Your task to perform on an android device: Open network settings Image 0: 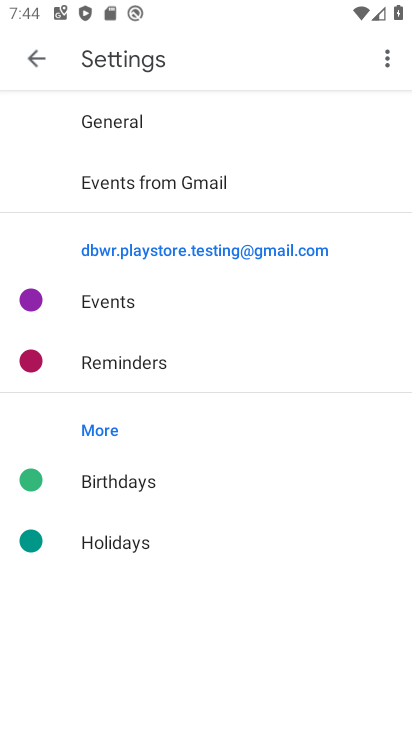
Step 0: press home button
Your task to perform on an android device: Open network settings Image 1: 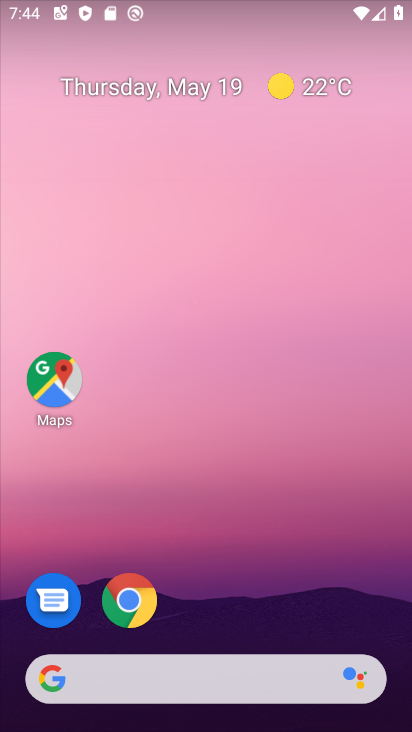
Step 1: drag from (341, 573) to (326, 245)
Your task to perform on an android device: Open network settings Image 2: 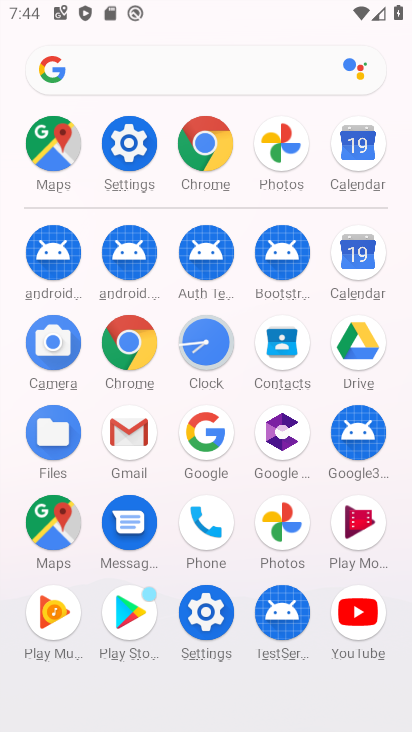
Step 2: click (192, 606)
Your task to perform on an android device: Open network settings Image 3: 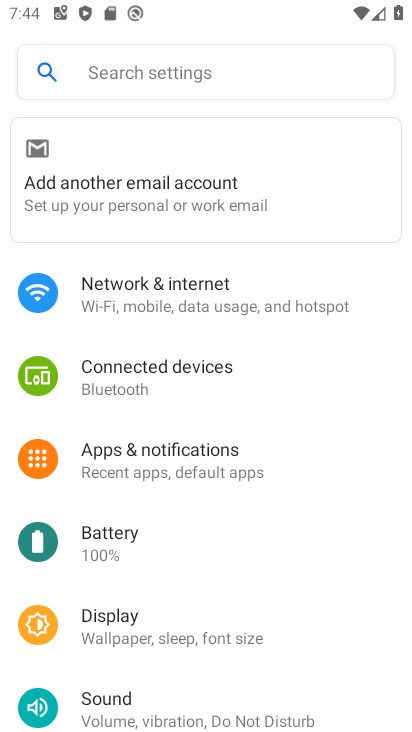
Step 3: click (247, 300)
Your task to perform on an android device: Open network settings Image 4: 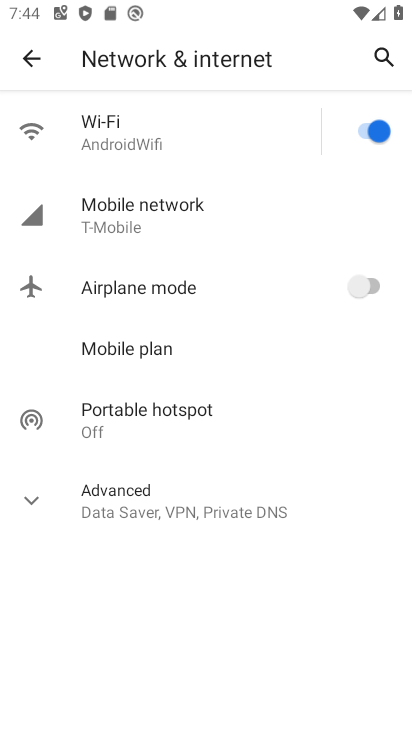
Step 4: click (158, 221)
Your task to perform on an android device: Open network settings Image 5: 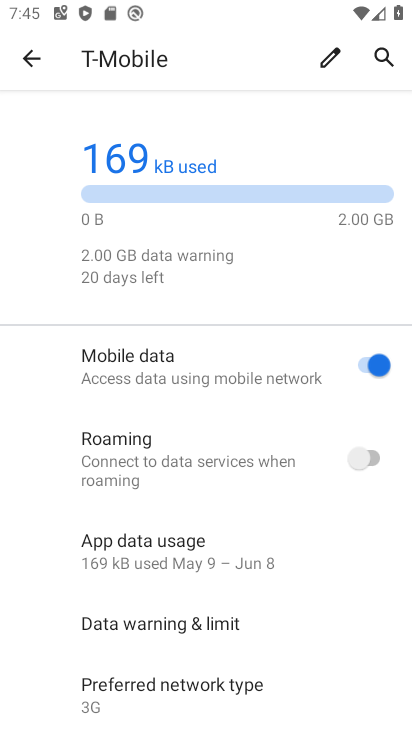
Step 5: task complete